Your task to perform on an android device: Open ESPN.com Image 0: 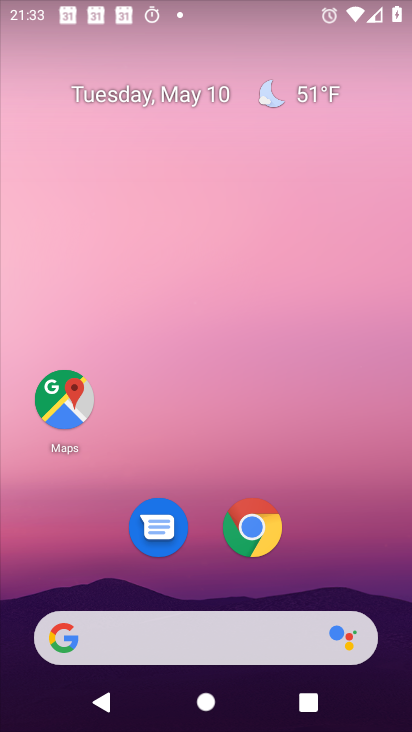
Step 0: drag from (202, 589) to (97, 26)
Your task to perform on an android device: Open ESPN.com Image 1: 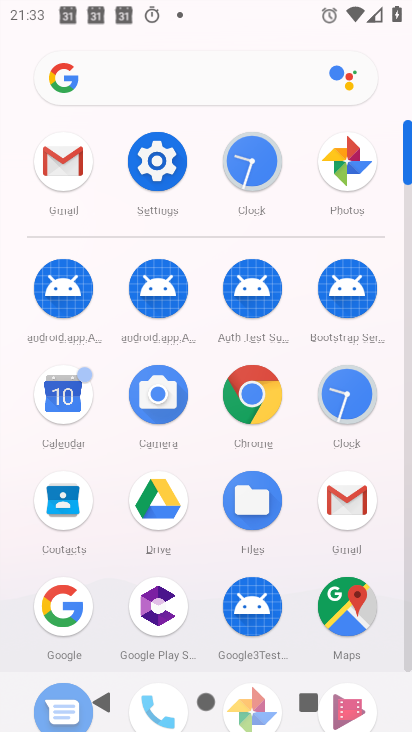
Step 1: click (251, 389)
Your task to perform on an android device: Open ESPN.com Image 2: 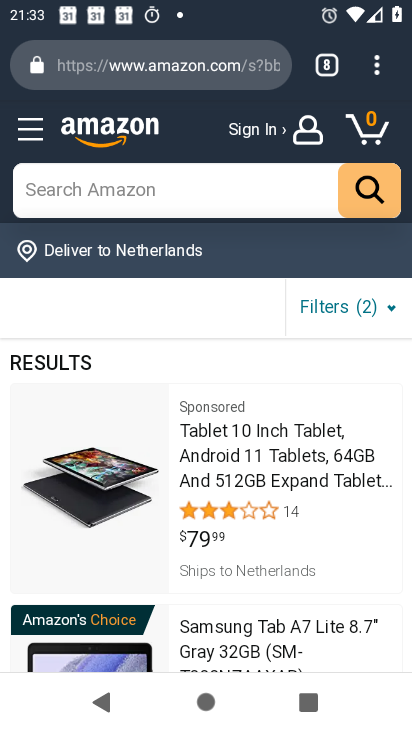
Step 2: click (322, 61)
Your task to perform on an android device: Open ESPN.com Image 3: 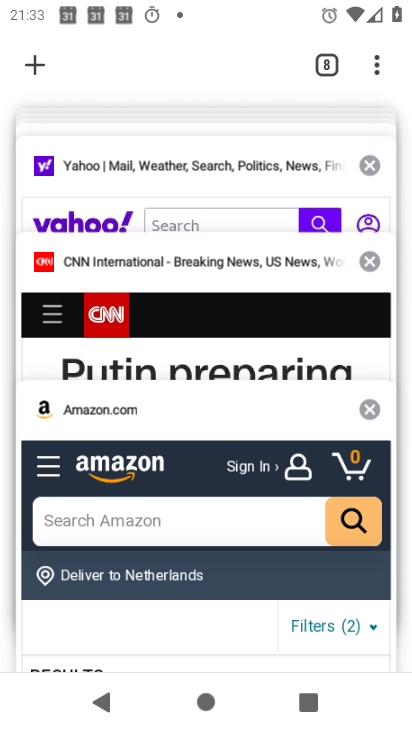
Step 3: click (36, 49)
Your task to perform on an android device: Open ESPN.com Image 4: 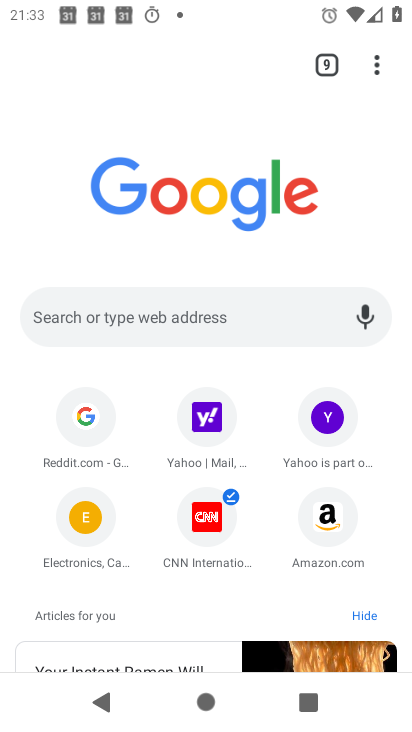
Step 4: click (211, 331)
Your task to perform on an android device: Open ESPN.com Image 5: 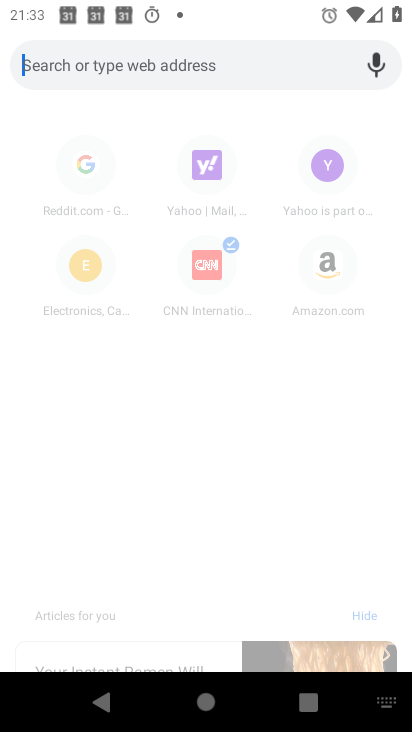
Step 5: type "espn"
Your task to perform on an android device: Open ESPN.com Image 6: 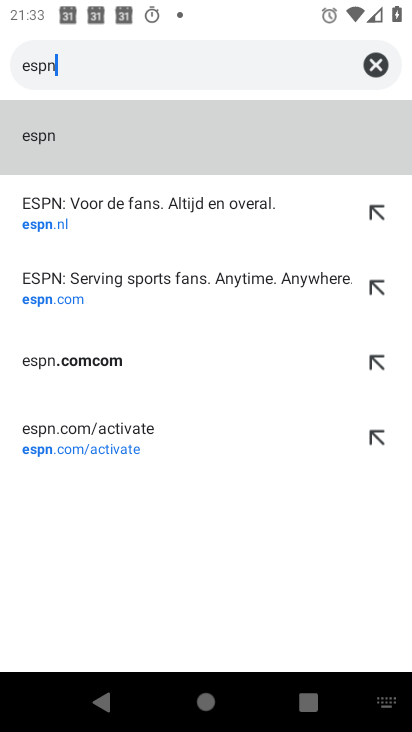
Step 6: click (73, 273)
Your task to perform on an android device: Open ESPN.com Image 7: 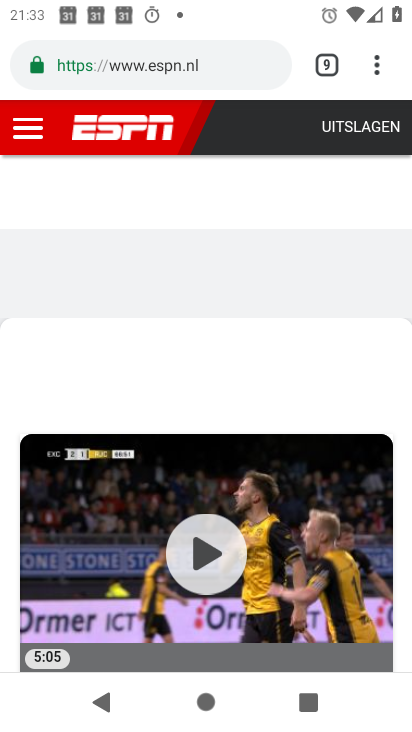
Step 7: task complete